Your task to perform on an android device: stop showing notifications on the lock screen Image 0: 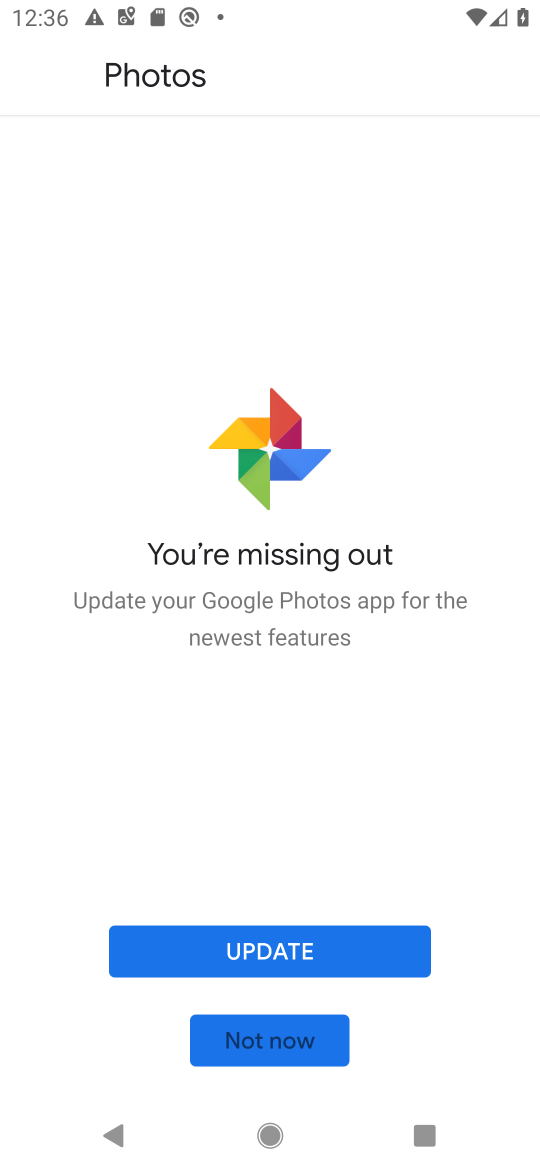
Step 0: press back button
Your task to perform on an android device: stop showing notifications on the lock screen Image 1: 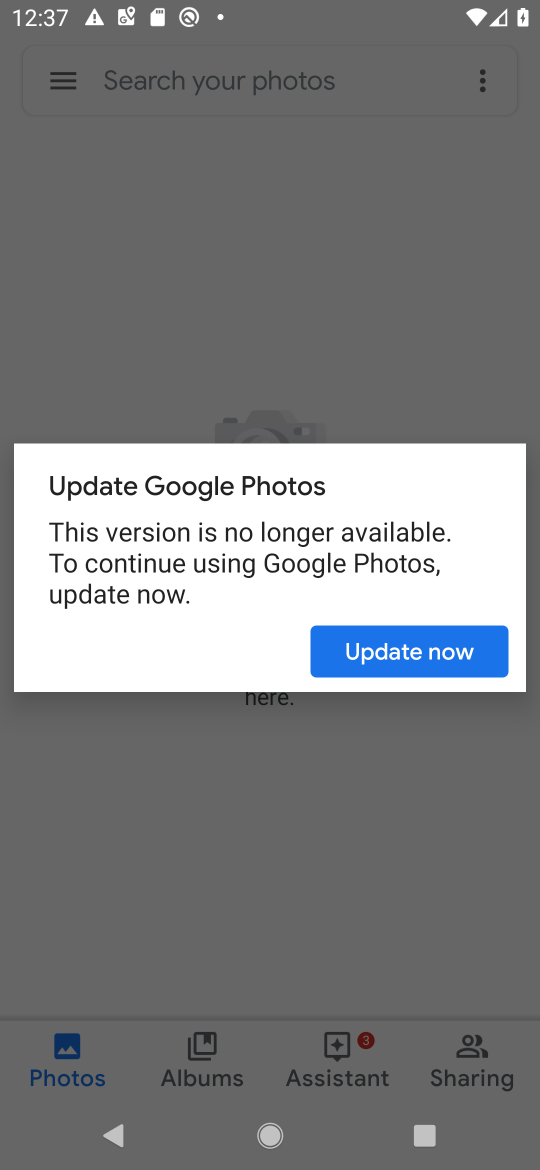
Step 1: press home button
Your task to perform on an android device: stop showing notifications on the lock screen Image 2: 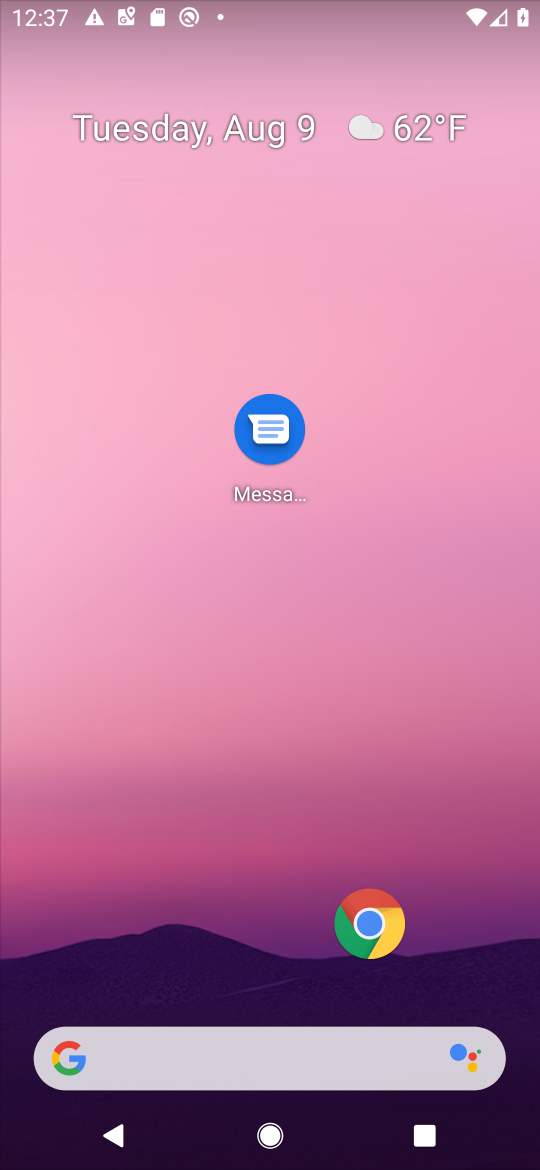
Step 2: drag from (31, 1135) to (134, 356)
Your task to perform on an android device: stop showing notifications on the lock screen Image 3: 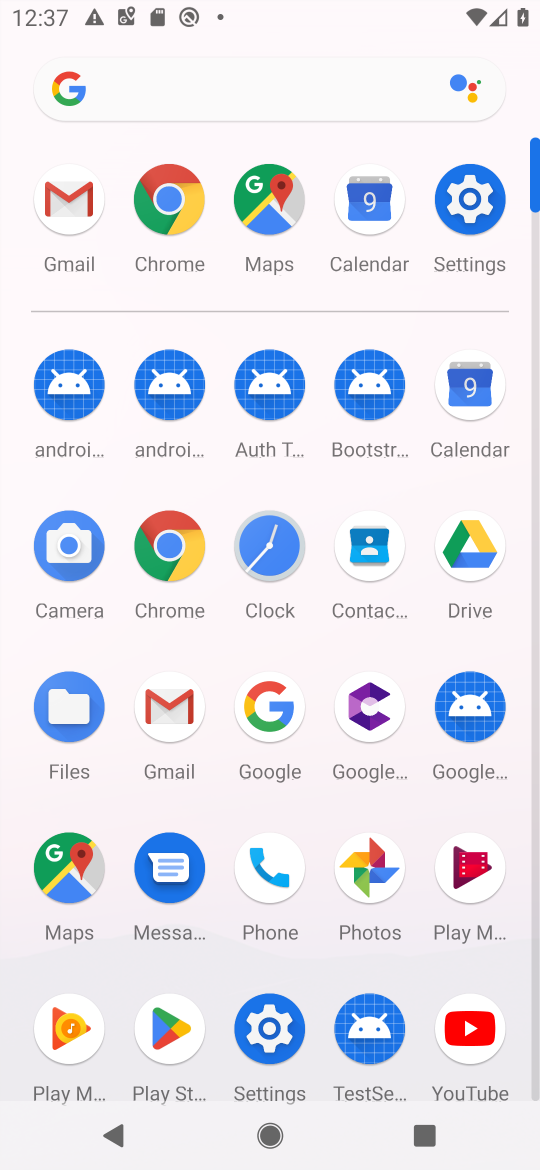
Step 3: click (287, 1007)
Your task to perform on an android device: stop showing notifications on the lock screen Image 4: 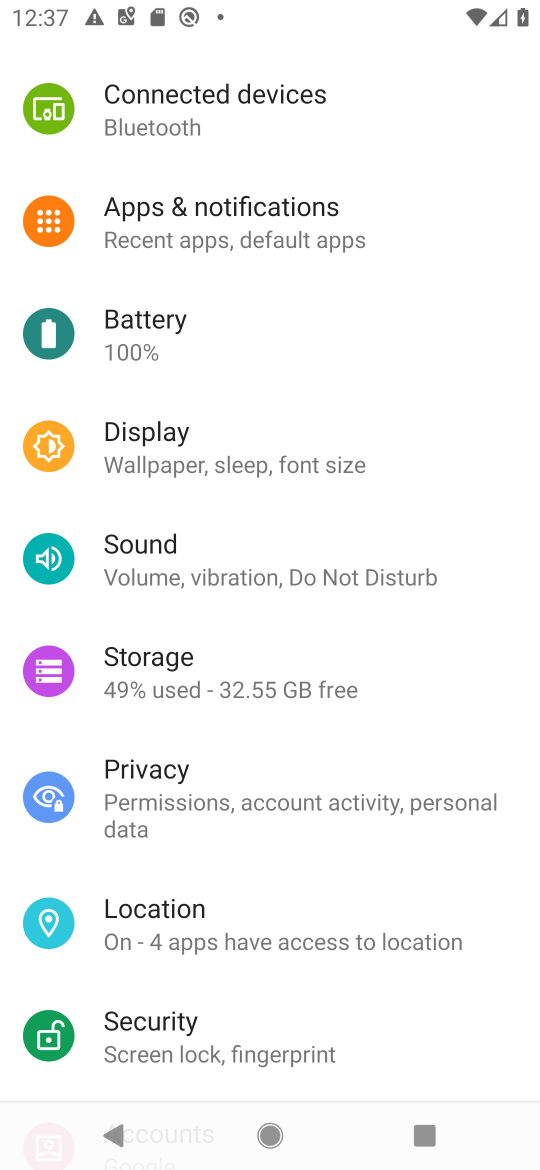
Step 4: click (240, 214)
Your task to perform on an android device: stop showing notifications on the lock screen Image 5: 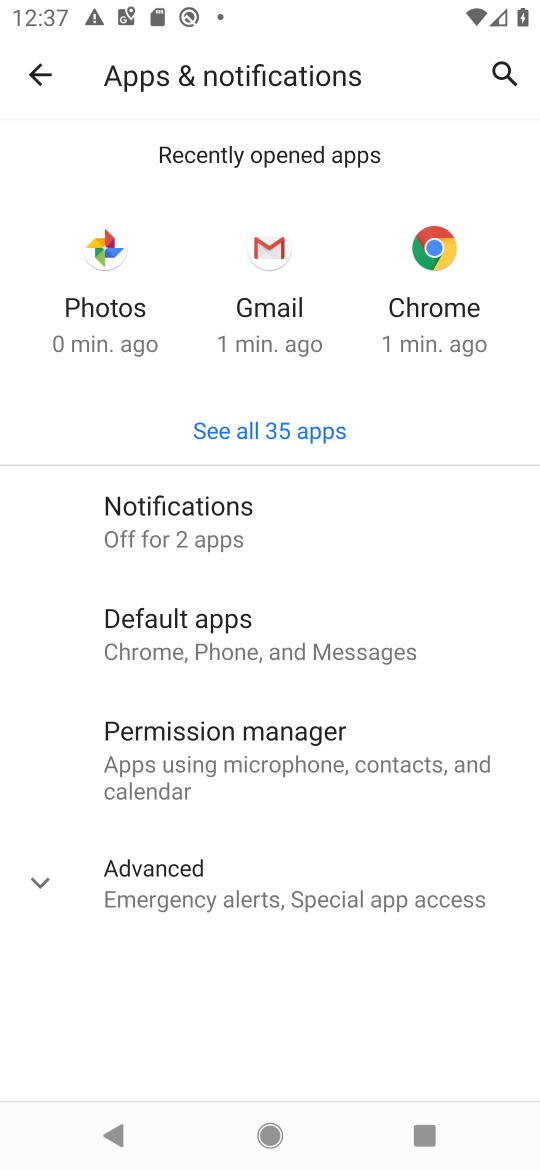
Step 5: click (132, 876)
Your task to perform on an android device: stop showing notifications on the lock screen Image 6: 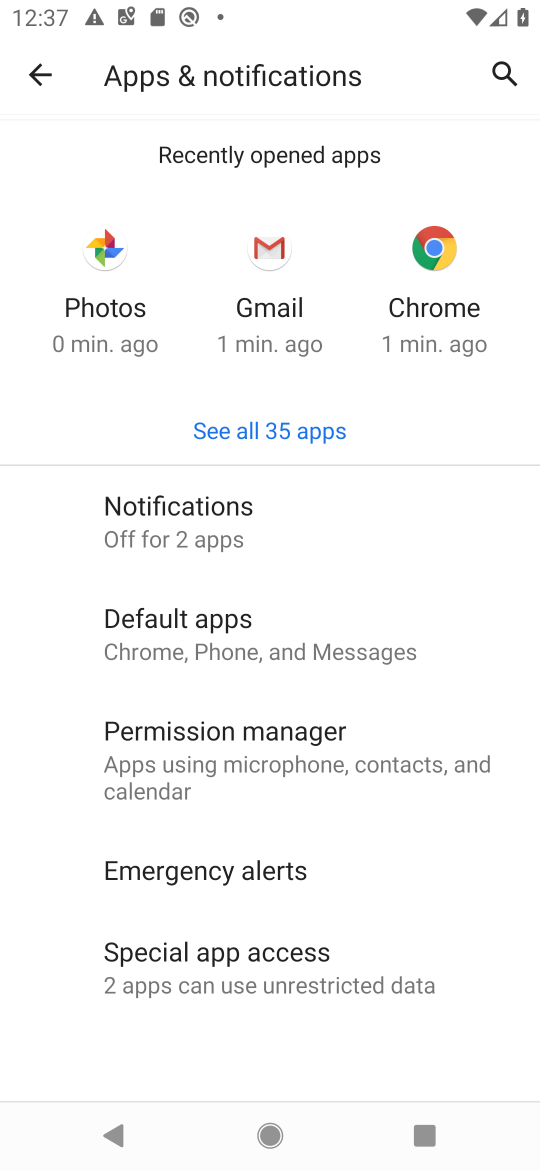
Step 6: click (223, 519)
Your task to perform on an android device: stop showing notifications on the lock screen Image 7: 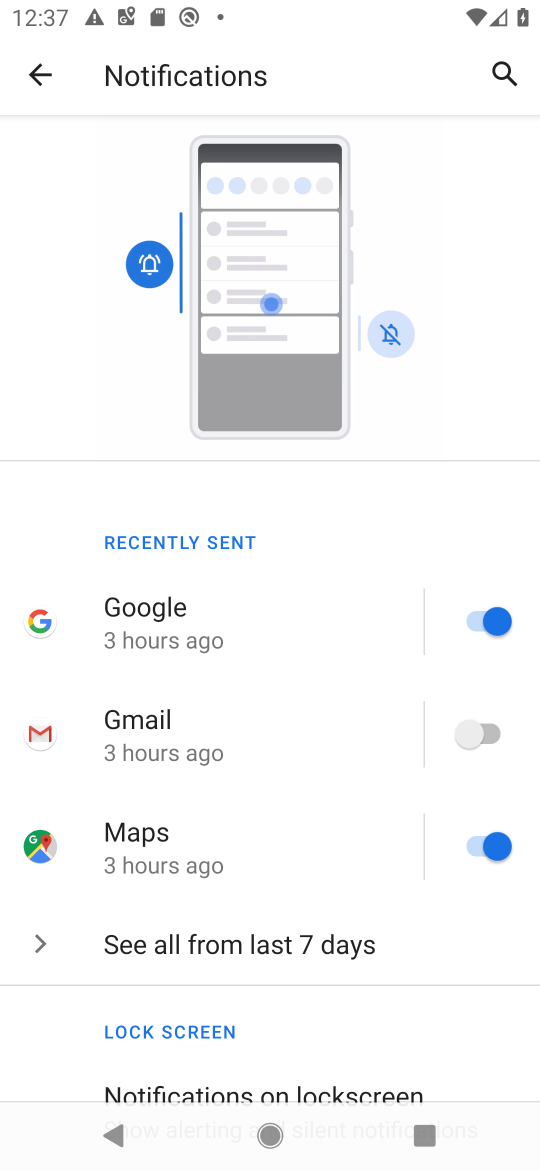
Step 7: drag from (31, 1080) to (45, 517)
Your task to perform on an android device: stop showing notifications on the lock screen Image 8: 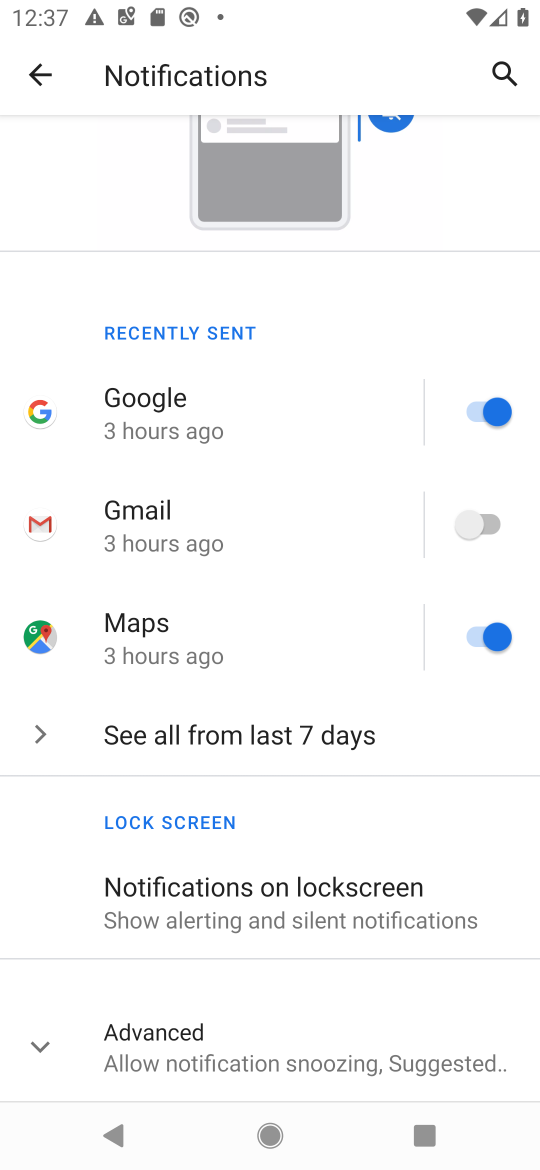
Step 8: click (156, 895)
Your task to perform on an android device: stop showing notifications on the lock screen Image 9: 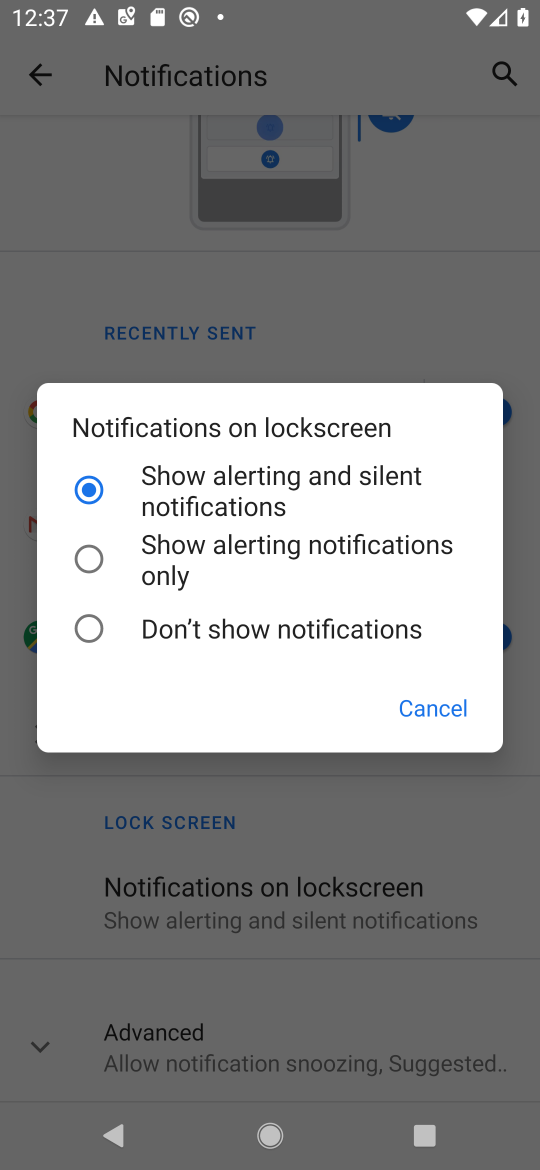
Step 9: click (80, 612)
Your task to perform on an android device: stop showing notifications on the lock screen Image 10: 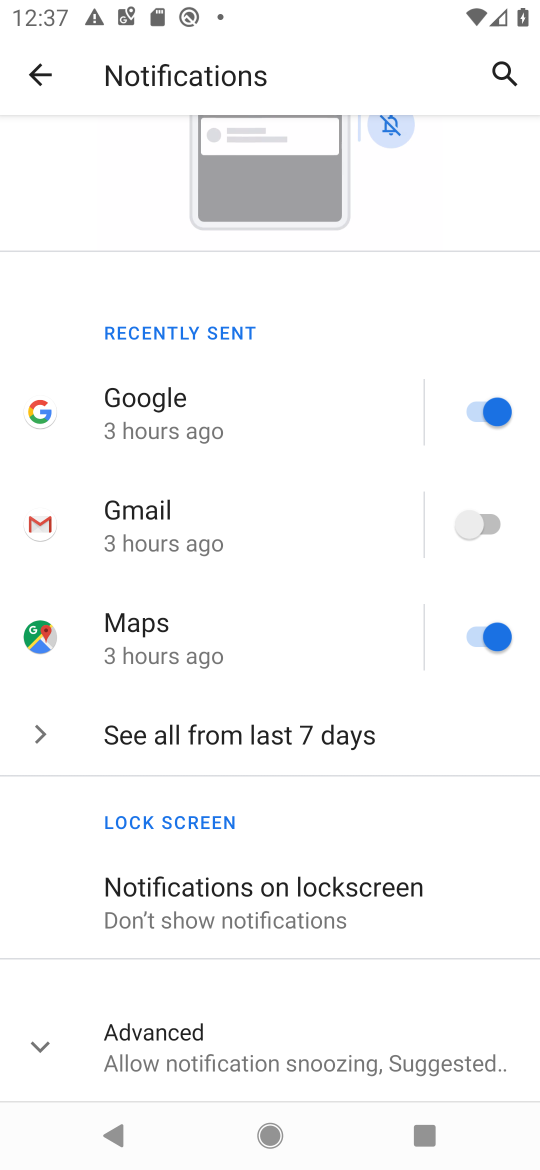
Step 10: task complete